Your task to perform on an android device: visit the assistant section in the google photos Image 0: 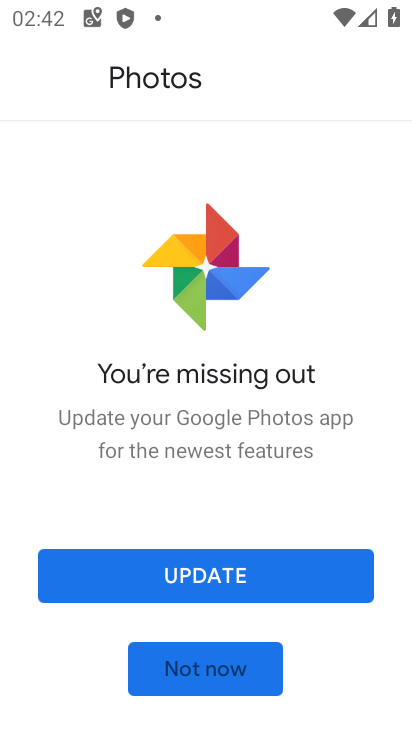
Step 0: press back button
Your task to perform on an android device: visit the assistant section in the google photos Image 1: 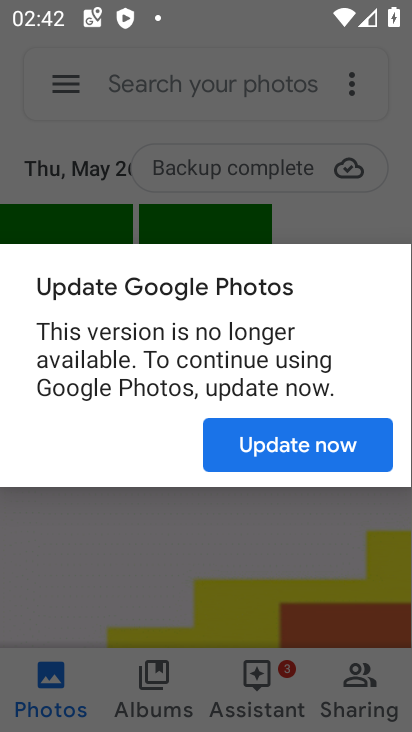
Step 1: click (380, 431)
Your task to perform on an android device: visit the assistant section in the google photos Image 2: 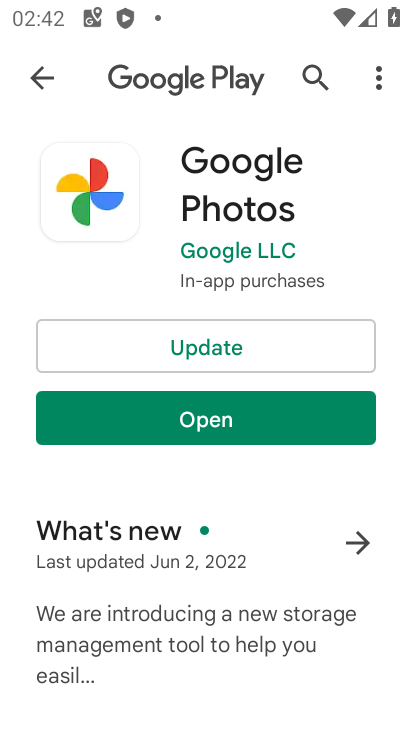
Step 2: click (305, 433)
Your task to perform on an android device: visit the assistant section in the google photos Image 3: 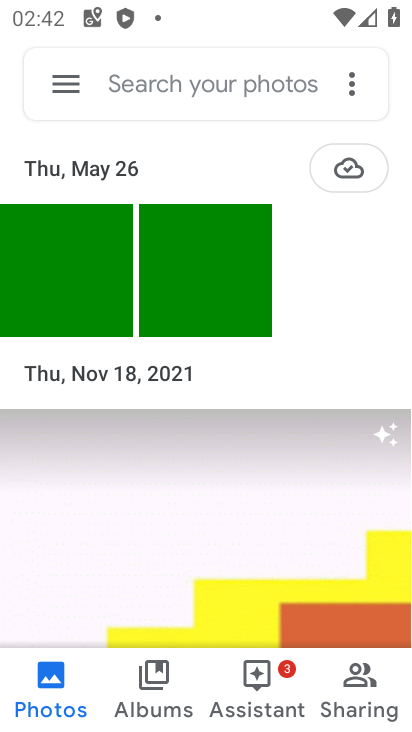
Step 3: click (275, 689)
Your task to perform on an android device: visit the assistant section in the google photos Image 4: 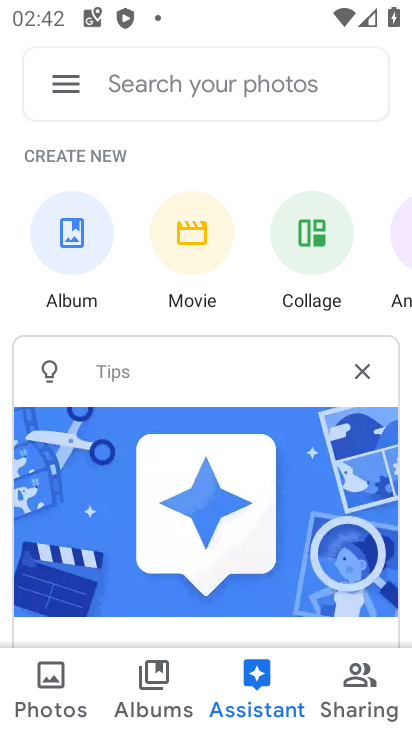
Step 4: task complete